Your task to perform on an android device: Go to Google maps Image 0: 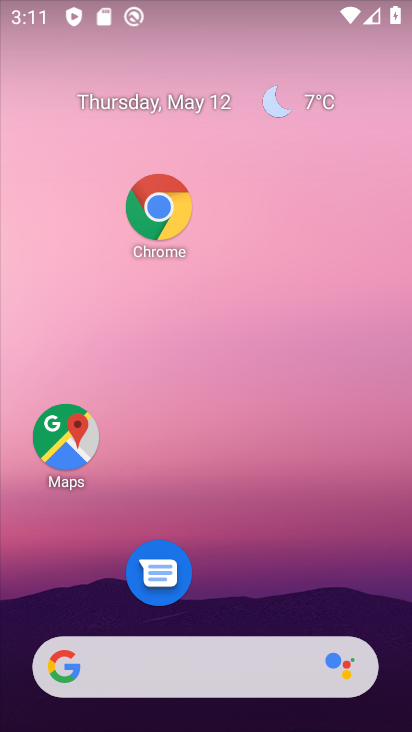
Step 0: click (82, 452)
Your task to perform on an android device: Go to Google maps Image 1: 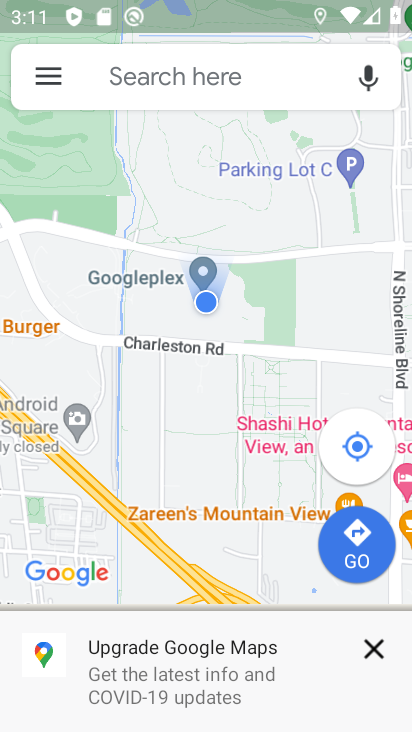
Step 1: click (375, 642)
Your task to perform on an android device: Go to Google maps Image 2: 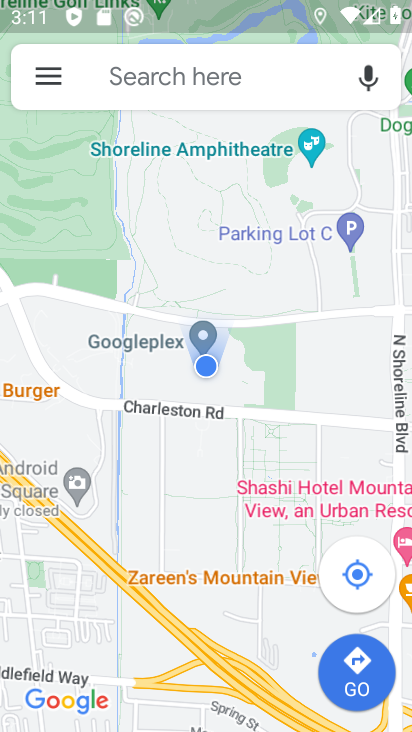
Step 2: task complete